Your task to perform on an android device: choose inbox layout in the gmail app Image 0: 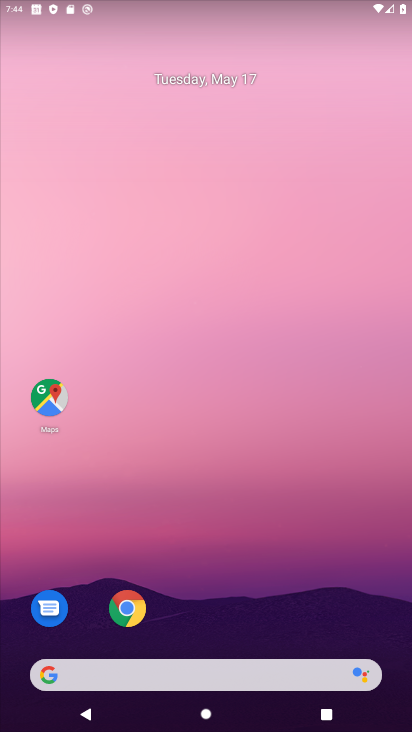
Step 0: drag from (246, 607) to (316, 18)
Your task to perform on an android device: choose inbox layout in the gmail app Image 1: 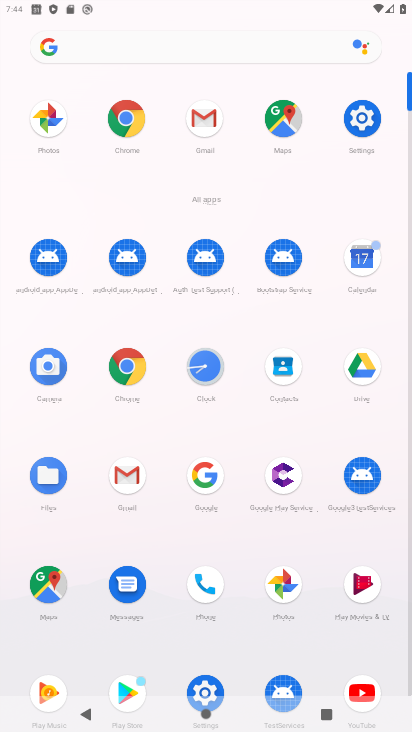
Step 1: click (126, 489)
Your task to perform on an android device: choose inbox layout in the gmail app Image 2: 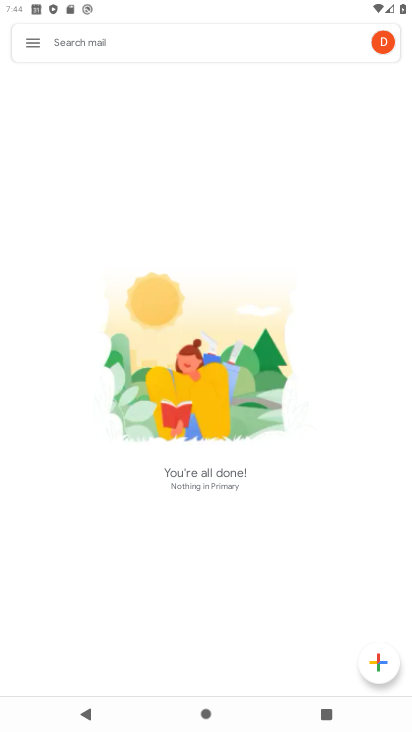
Step 2: click (39, 47)
Your task to perform on an android device: choose inbox layout in the gmail app Image 3: 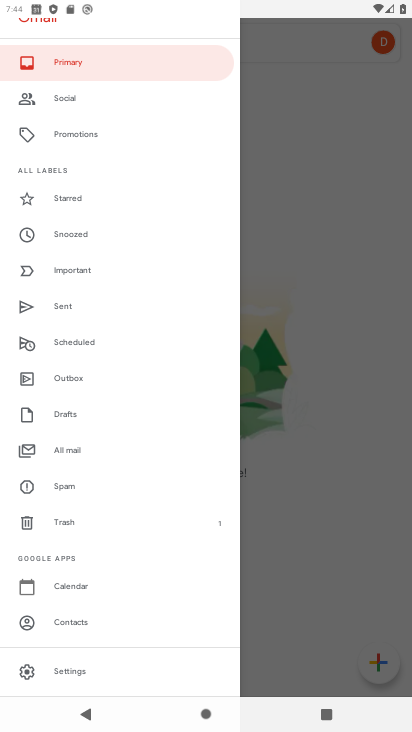
Step 3: drag from (68, 573) to (125, 373)
Your task to perform on an android device: choose inbox layout in the gmail app Image 4: 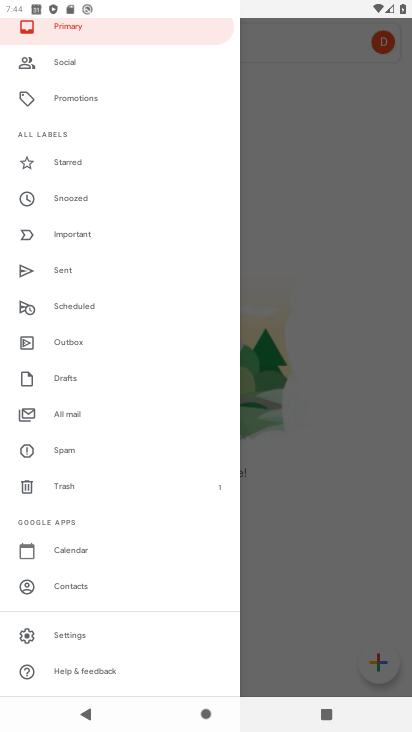
Step 4: click (83, 638)
Your task to perform on an android device: choose inbox layout in the gmail app Image 5: 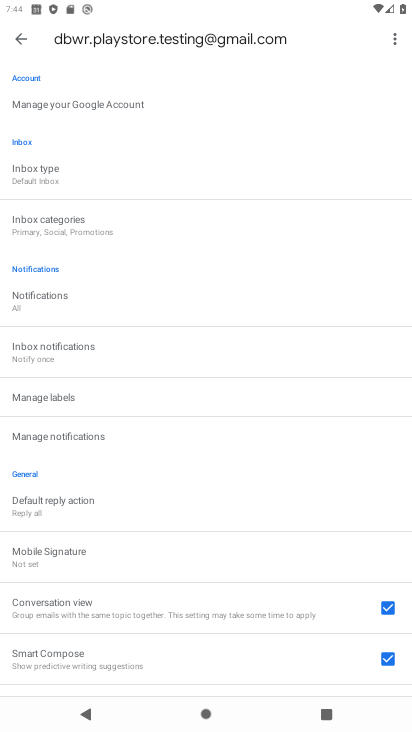
Step 5: click (54, 178)
Your task to perform on an android device: choose inbox layout in the gmail app Image 6: 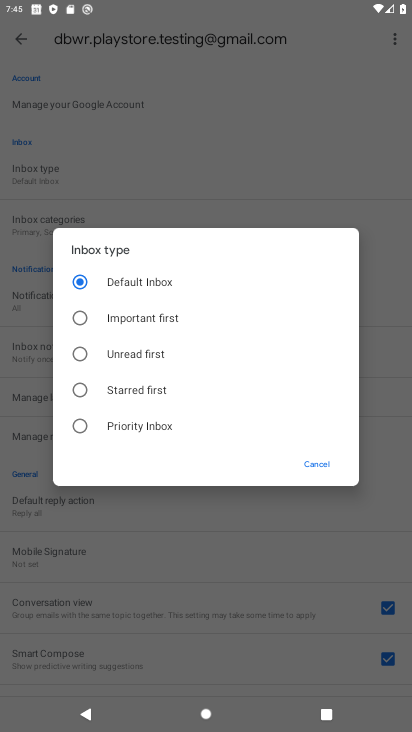
Step 6: click (93, 310)
Your task to perform on an android device: choose inbox layout in the gmail app Image 7: 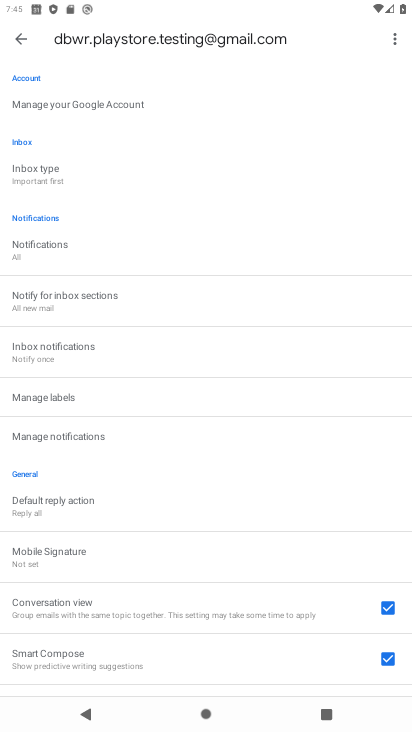
Step 7: task complete